Your task to perform on an android device: Open calendar and show me the third week of next month Image 0: 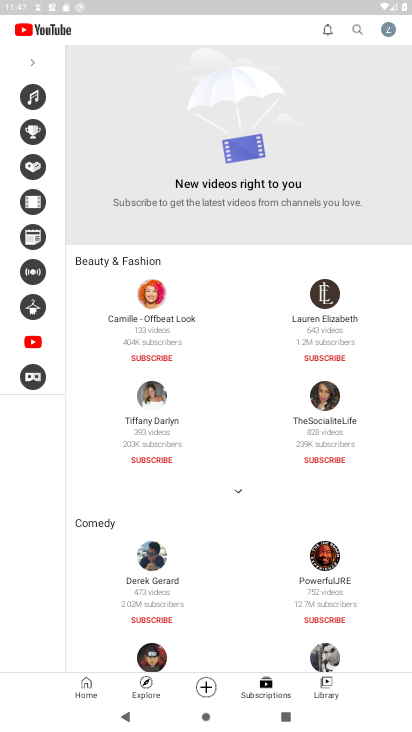
Step 0: press home button
Your task to perform on an android device: Open calendar and show me the third week of next month Image 1: 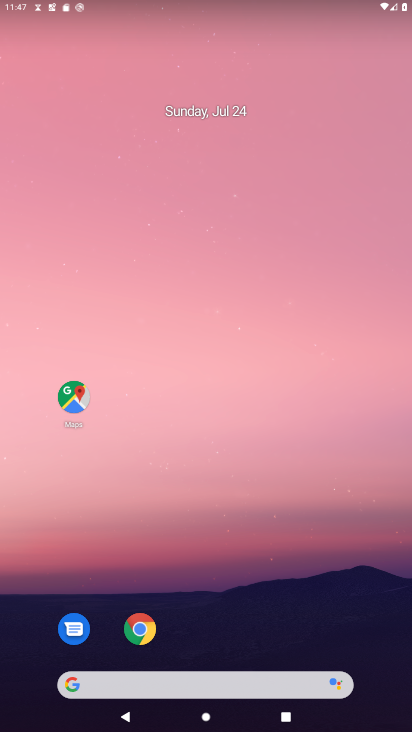
Step 1: drag from (229, 613) to (308, 6)
Your task to perform on an android device: Open calendar and show me the third week of next month Image 2: 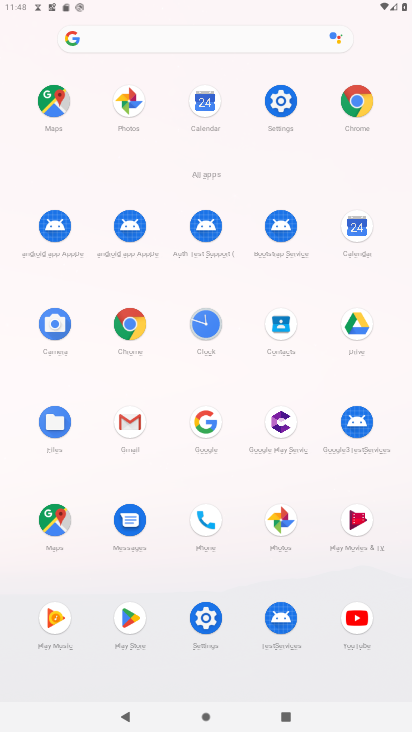
Step 2: click (349, 281)
Your task to perform on an android device: Open calendar and show me the third week of next month Image 3: 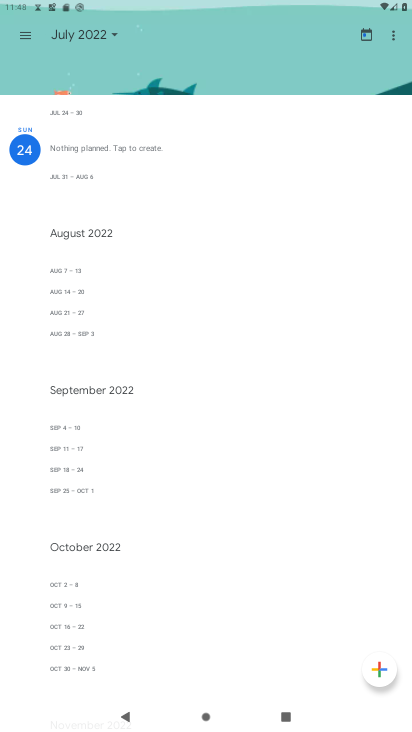
Step 3: click (28, 39)
Your task to perform on an android device: Open calendar and show me the third week of next month Image 4: 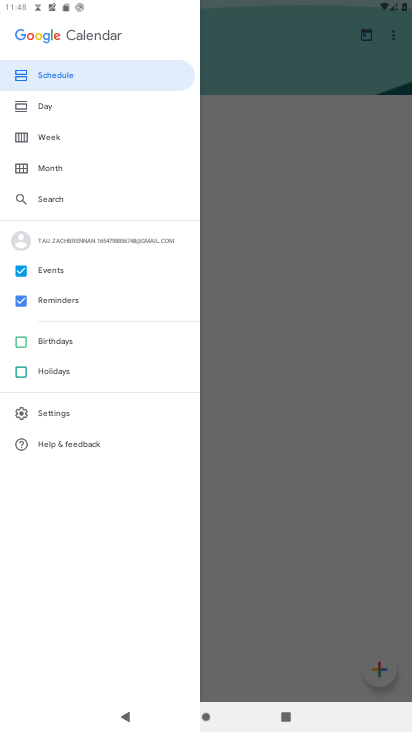
Step 4: click (55, 140)
Your task to perform on an android device: Open calendar and show me the third week of next month Image 5: 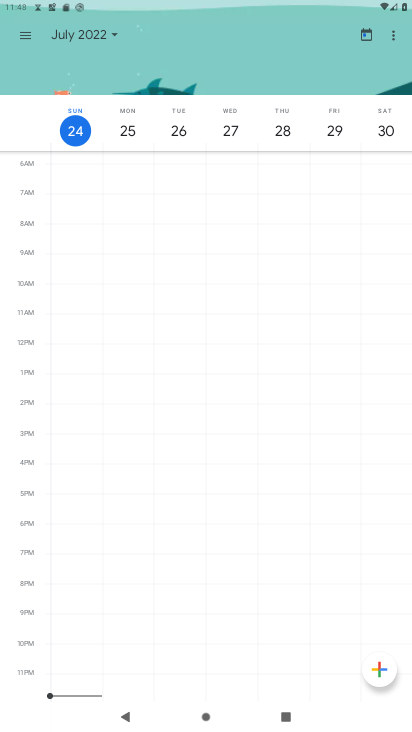
Step 5: task complete